Your task to perform on an android device: open wifi settings Image 0: 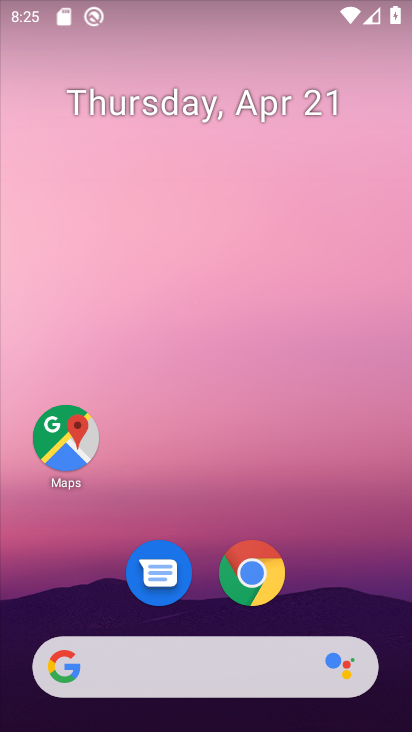
Step 0: drag from (331, 554) to (313, 32)
Your task to perform on an android device: open wifi settings Image 1: 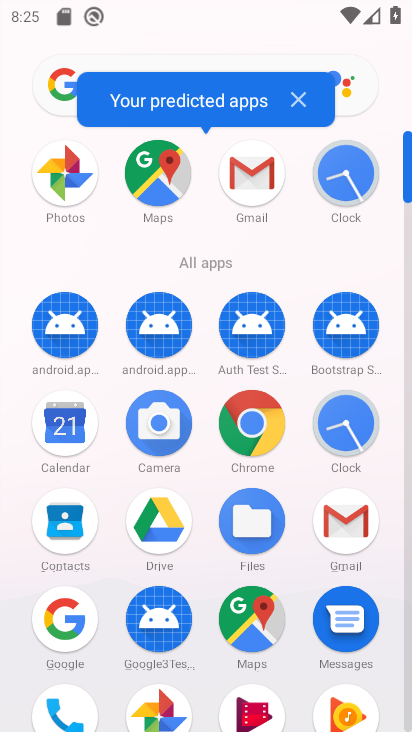
Step 1: drag from (306, 275) to (342, 74)
Your task to perform on an android device: open wifi settings Image 2: 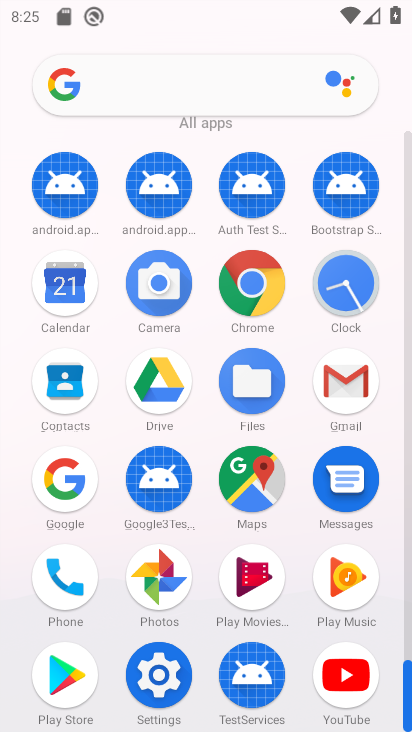
Step 2: click (163, 675)
Your task to perform on an android device: open wifi settings Image 3: 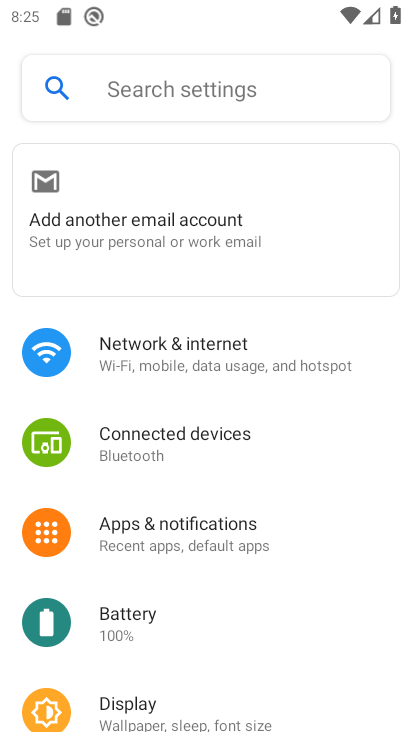
Step 3: click (240, 365)
Your task to perform on an android device: open wifi settings Image 4: 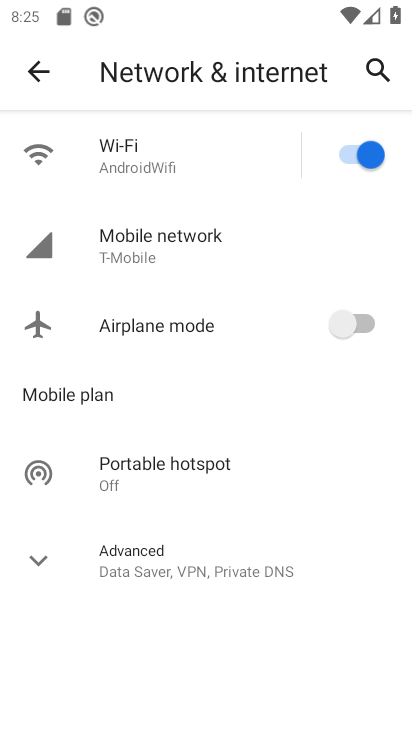
Step 4: click (121, 141)
Your task to perform on an android device: open wifi settings Image 5: 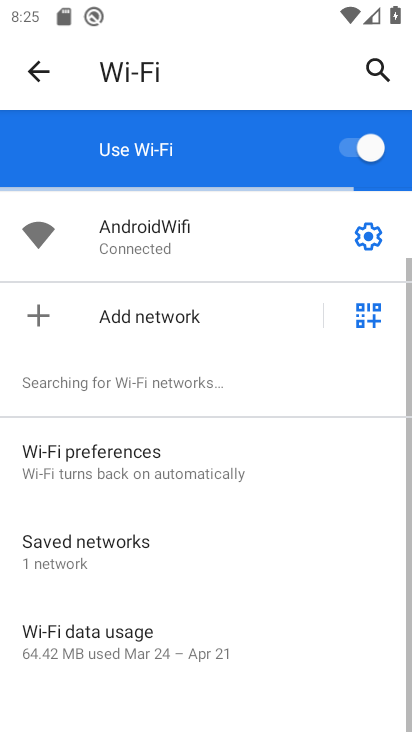
Step 5: click (365, 239)
Your task to perform on an android device: open wifi settings Image 6: 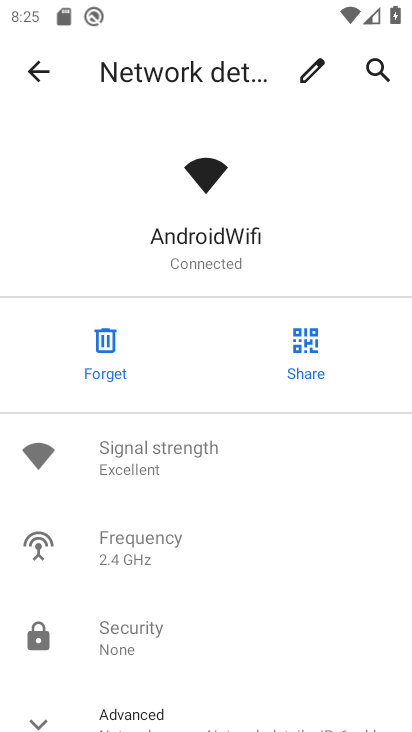
Step 6: task complete